Your task to perform on an android device: Open calendar and show me the fourth week of next month Image 0: 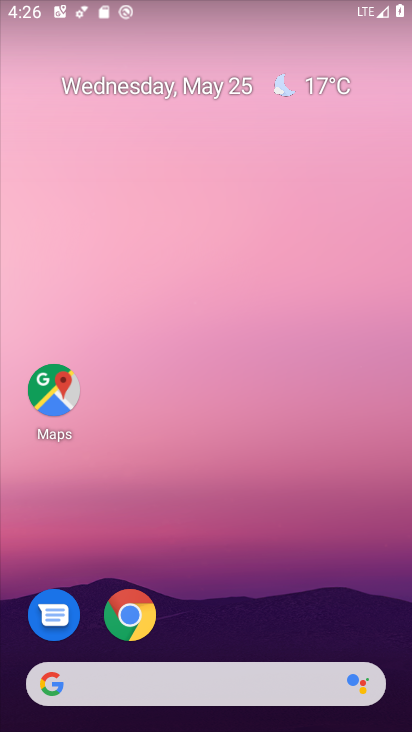
Step 0: drag from (306, 596) to (213, 114)
Your task to perform on an android device: Open calendar and show me the fourth week of next month Image 1: 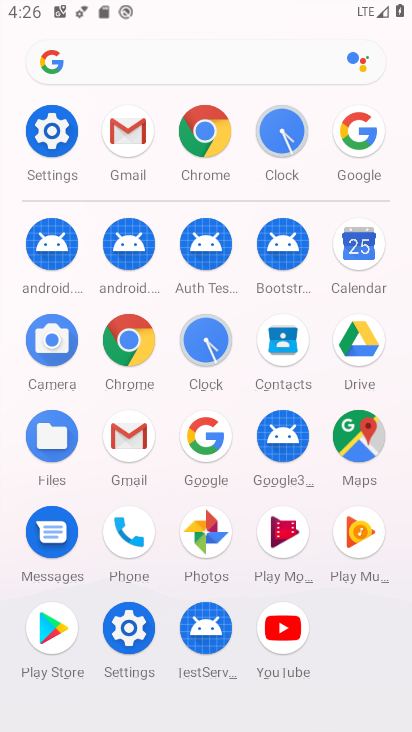
Step 1: click (368, 249)
Your task to perform on an android device: Open calendar and show me the fourth week of next month Image 2: 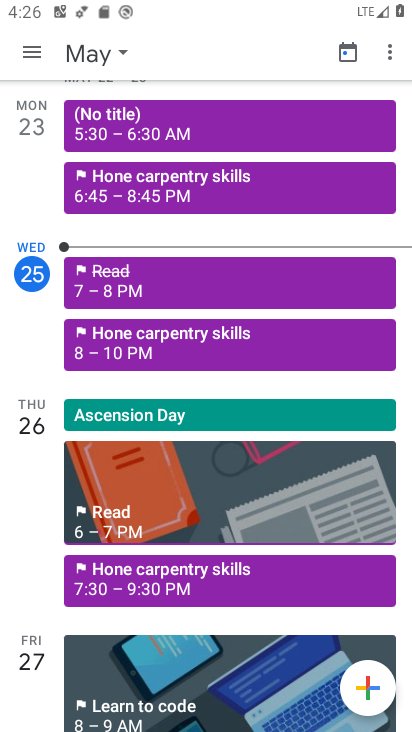
Step 2: click (33, 49)
Your task to perform on an android device: Open calendar and show me the fourth week of next month Image 3: 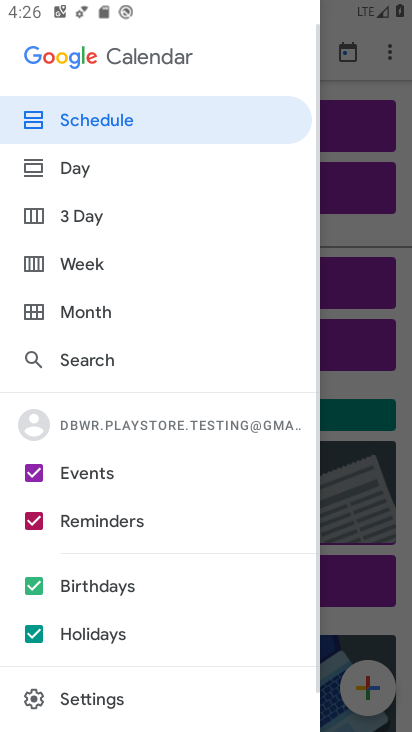
Step 3: click (103, 267)
Your task to perform on an android device: Open calendar and show me the fourth week of next month Image 4: 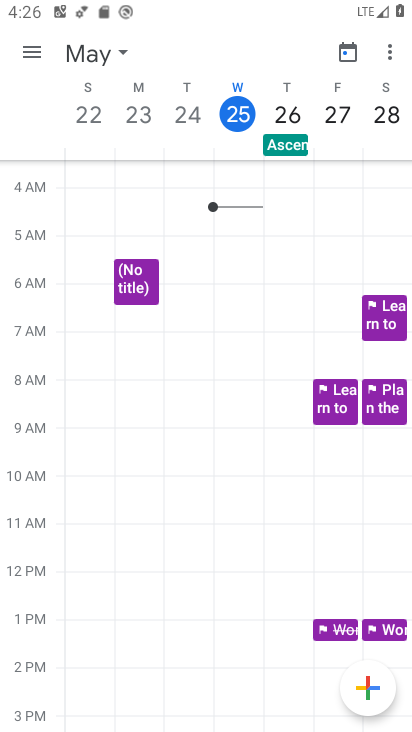
Step 4: click (127, 50)
Your task to perform on an android device: Open calendar and show me the fourth week of next month Image 5: 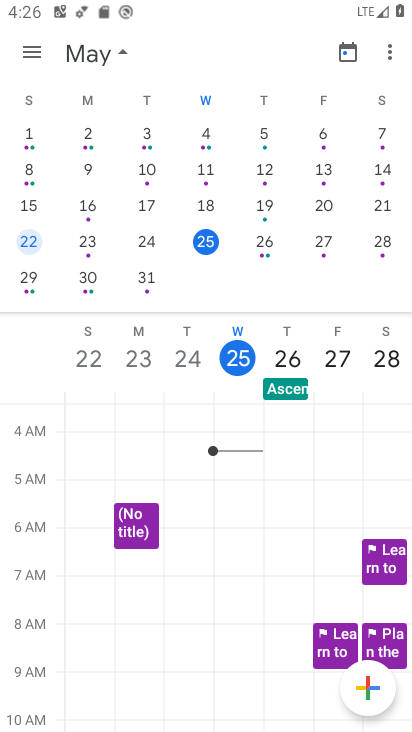
Step 5: drag from (311, 205) to (2, 395)
Your task to perform on an android device: Open calendar and show me the fourth week of next month Image 6: 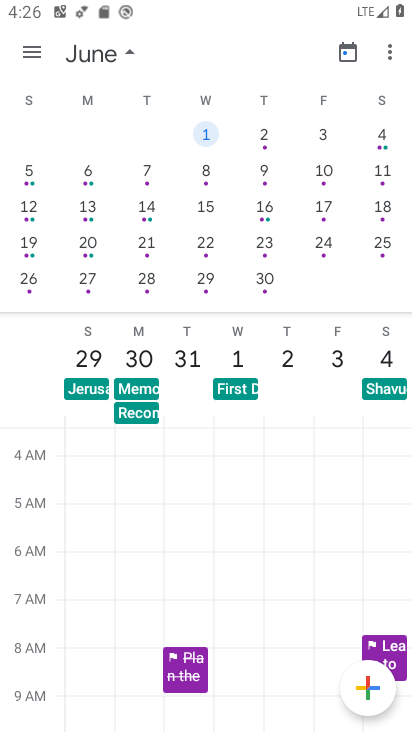
Step 6: click (23, 253)
Your task to perform on an android device: Open calendar and show me the fourth week of next month Image 7: 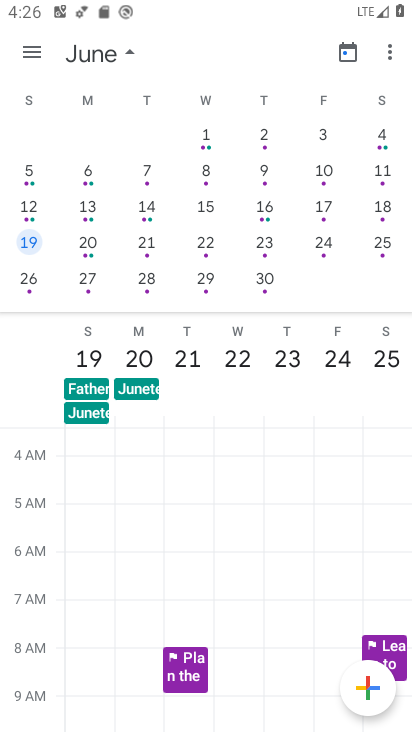
Step 7: task complete